Your task to perform on an android device: turn smart compose on in the gmail app Image 0: 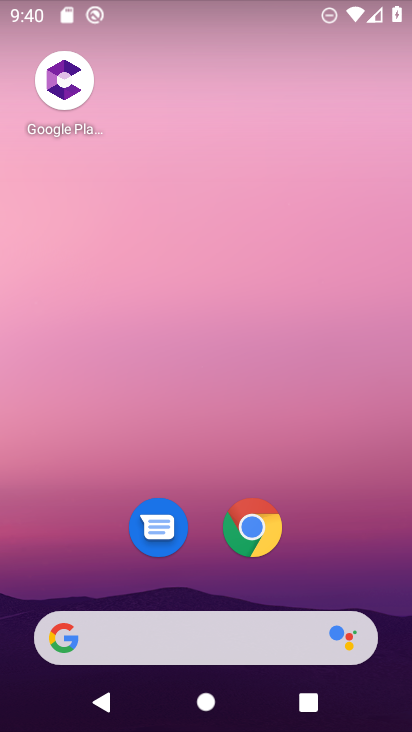
Step 0: drag from (226, 578) to (273, 2)
Your task to perform on an android device: turn smart compose on in the gmail app Image 1: 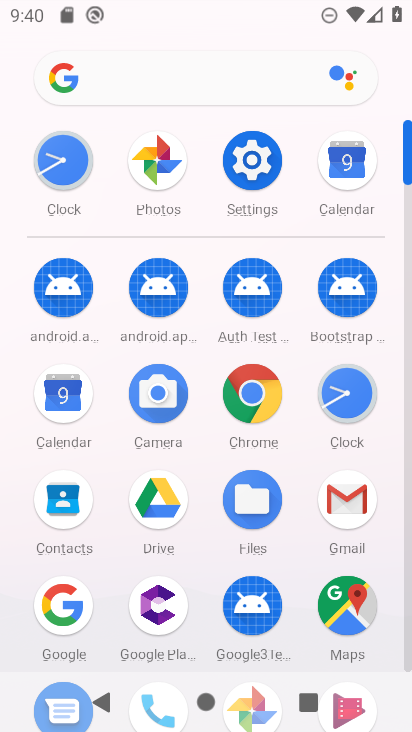
Step 1: click (334, 520)
Your task to perform on an android device: turn smart compose on in the gmail app Image 2: 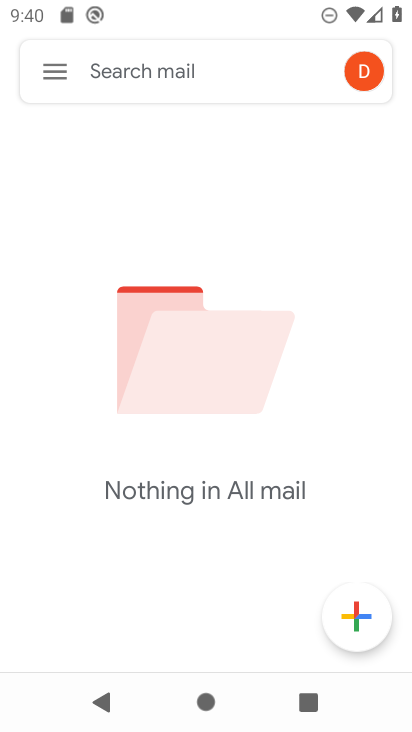
Step 2: click (47, 71)
Your task to perform on an android device: turn smart compose on in the gmail app Image 3: 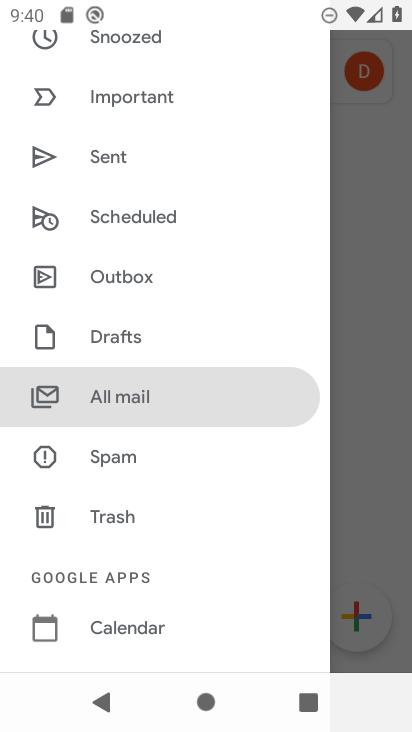
Step 3: drag from (148, 552) to (180, 306)
Your task to perform on an android device: turn smart compose on in the gmail app Image 4: 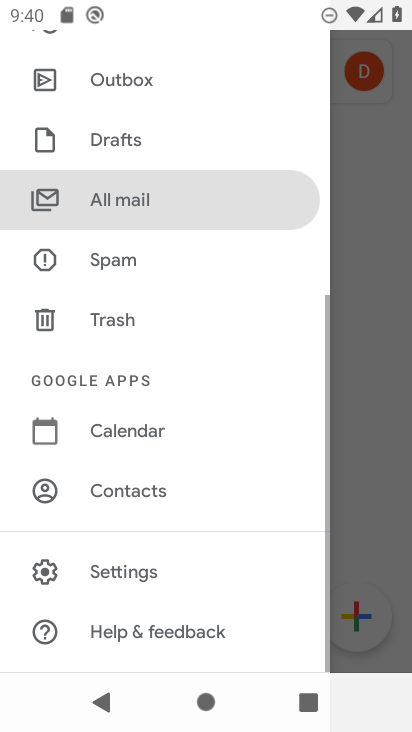
Step 4: click (100, 574)
Your task to perform on an android device: turn smart compose on in the gmail app Image 5: 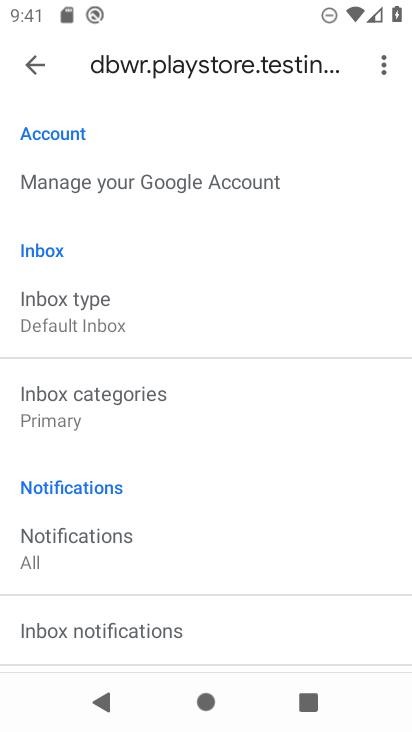
Step 5: task complete